Your task to perform on an android device: turn off translation in the chrome app Image 0: 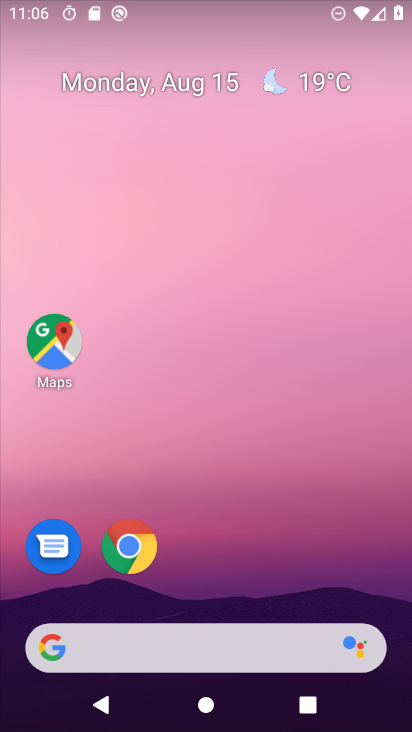
Step 0: click (126, 547)
Your task to perform on an android device: turn off translation in the chrome app Image 1: 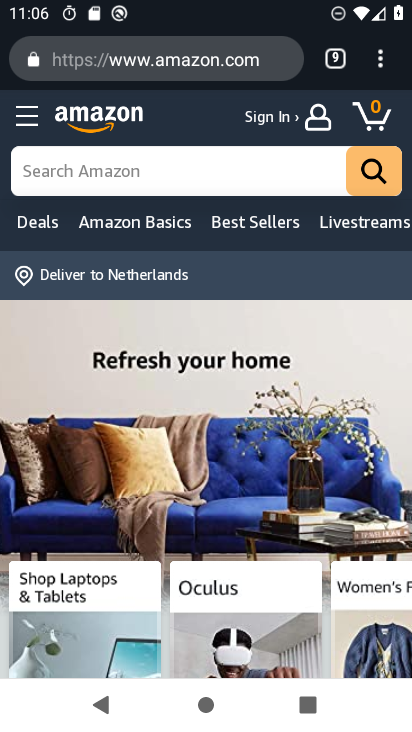
Step 1: click (382, 67)
Your task to perform on an android device: turn off translation in the chrome app Image 2: 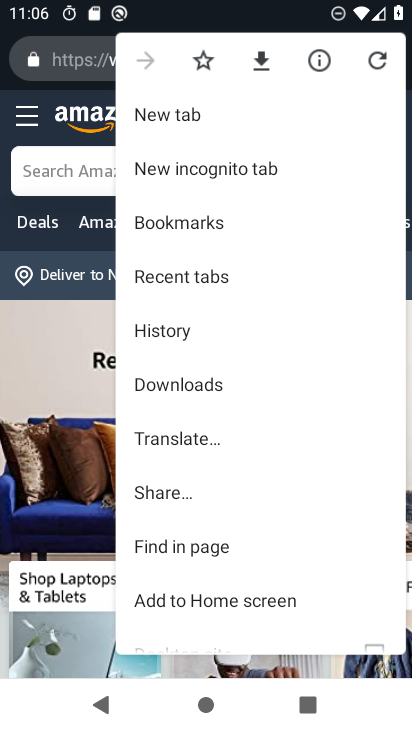
Step 2: drag from (190, 587) to (205, 257)
Your task to perform on an android device: turn off translation in the chrome app Image 3: 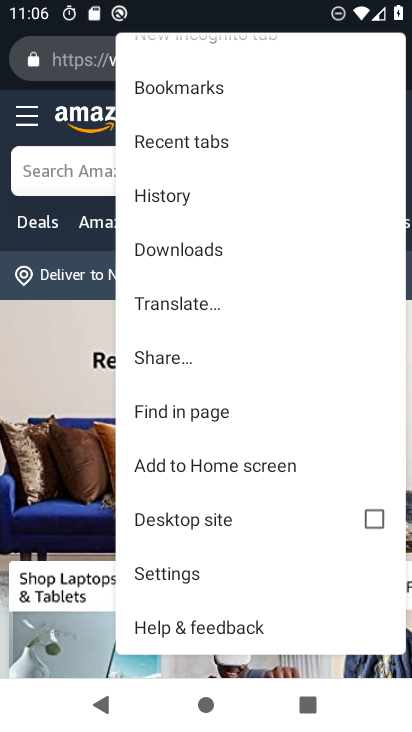
Step 3: click (170, 580)
Your task to perform on an android device: turn off translation in the chrome app Image 4: 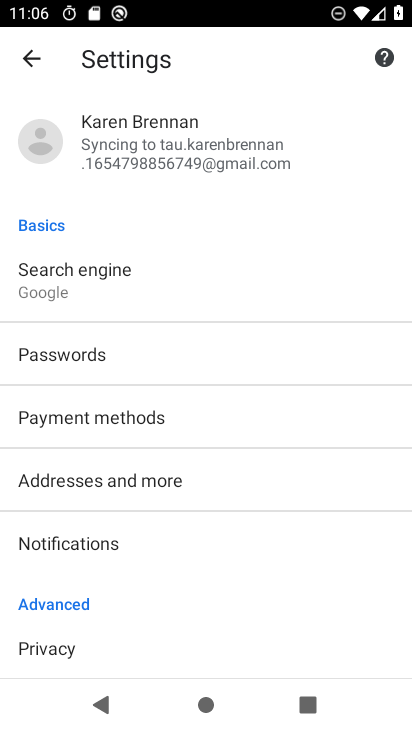
Step 4: drag from (125, 632) to (117, 301)
Your task to perform on an android device: turn off translation in the chrome app Image 5: 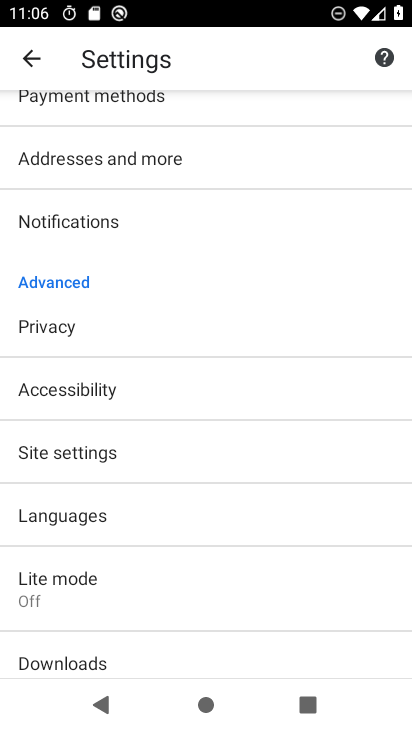
Step 5: click (77, 517)
Your task to perform on an android device: turn off translation in the chrome app Image 6: 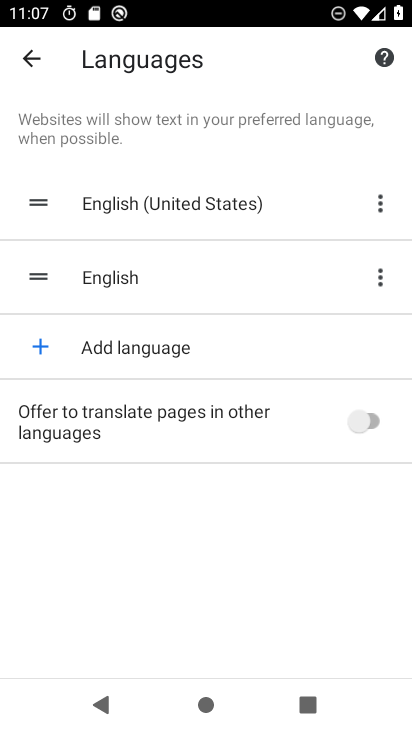
Step 6: task complete